Your task to perform on an android device: turn on notifications settings in the gmail app Image 0: 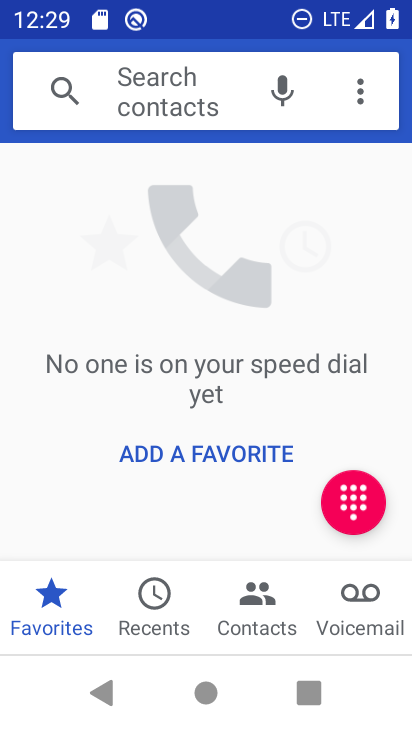
Step 0: press home button
Your task to perform on an android device: turn on notifications settings in the gmail app Image 1: 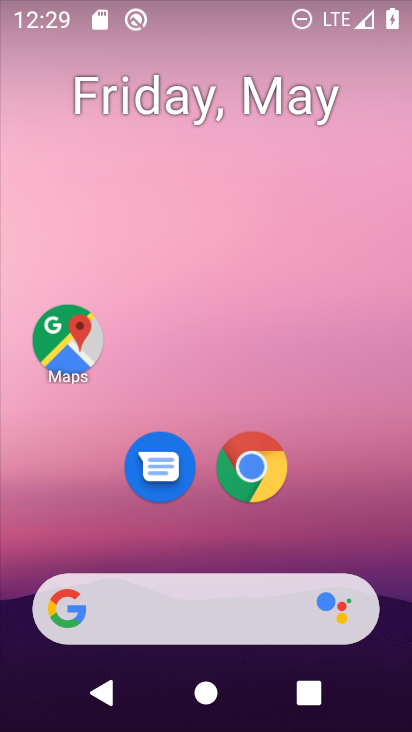
Step 1: drag from (169, 544) to (255, 14)
Your task to perform on an android device: turn on notifications settings in the gmail app Image 2: 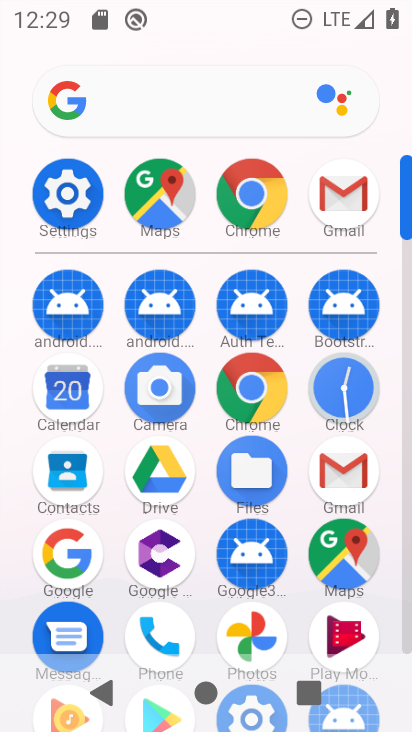
Step 2: click (356, 478)
Your task to perform on an android device: turn on notifications settings in the gmail app Image 3: 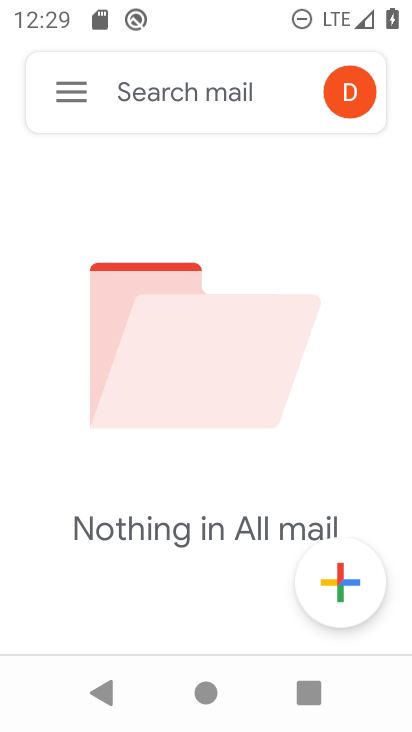
Step 3: click (52, 75)
Your task to perform on an android device: turn on notifications settings in the gmail app Image 4: 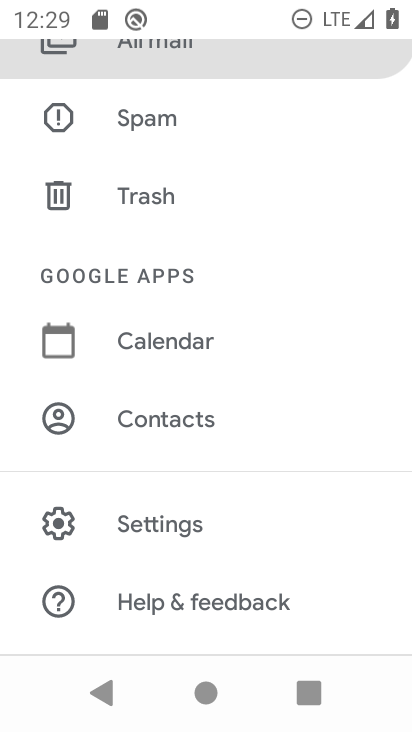
Step 4: click (187, 524)
Your task to perform on an android device: turn on notifications settings in the gmail app Image 5: 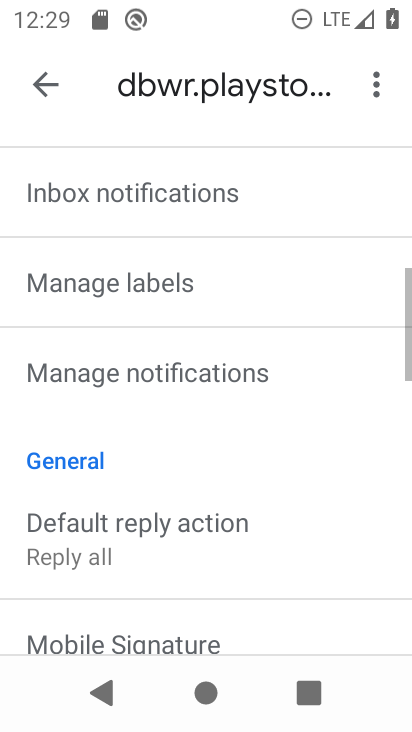
Step 5: drag from (204, 610) to (226, 365)
Your task to perform on an android device: turn on notifications settings in the gmail app Image 6: 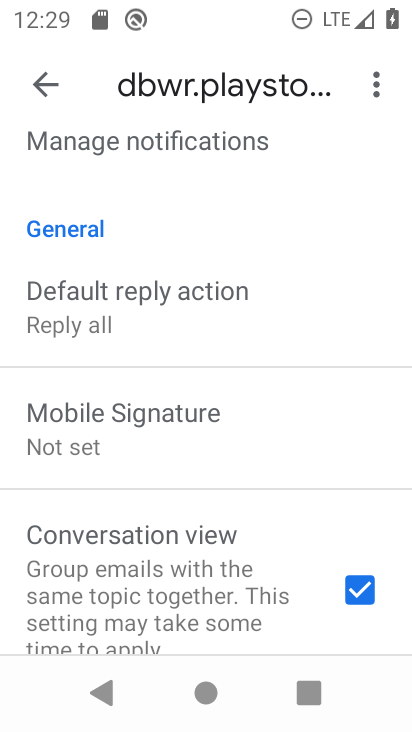
Step 6: click (206, 146)
Your task to perform on an android device: turn on notifications settings in the gmail app Image 7: 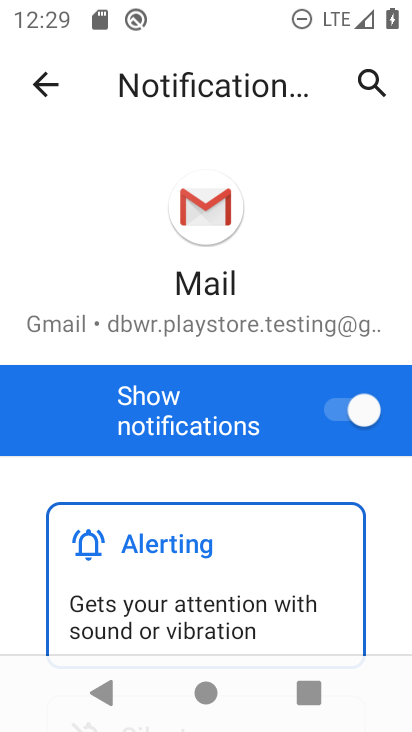
Step 7: task complete